Your task to perform on an android device: Find coffee shops on Maps Image 0: 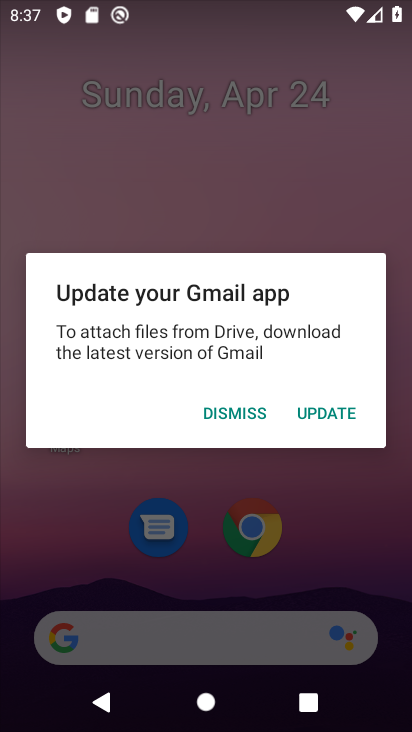
Step 0: press home button
Your task to perform on an android device: Find coffee shops on Maps Image 1: 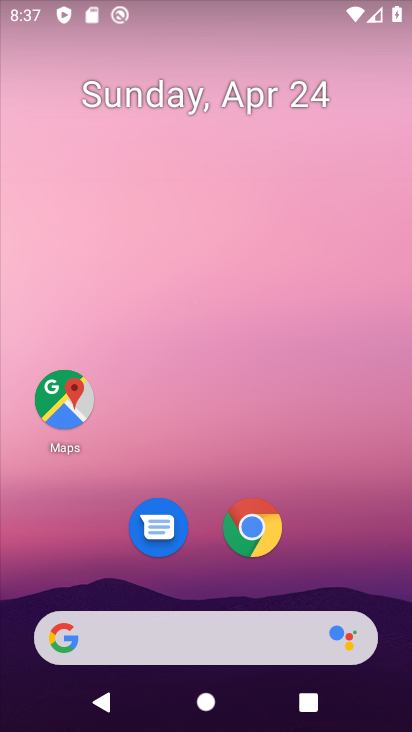
Step 1: drag from (380, 576) to (255, 55)
Your task to perform on an android device: Find coffee shops on Maps Image 2: 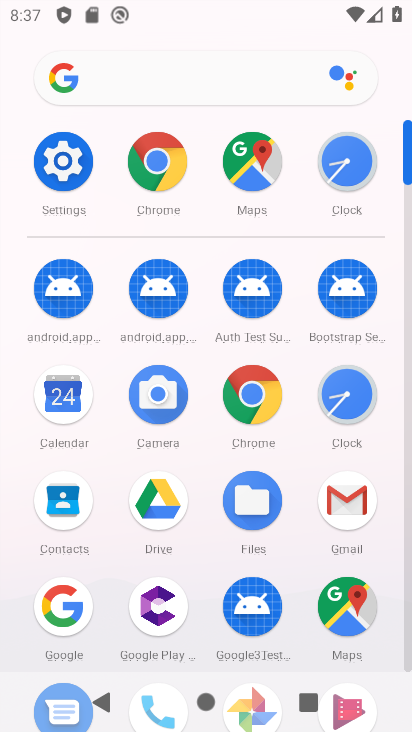
Step 2: click (370, 616)
Your task to perform on an android device: Find coffee shops on Maps Image 3: 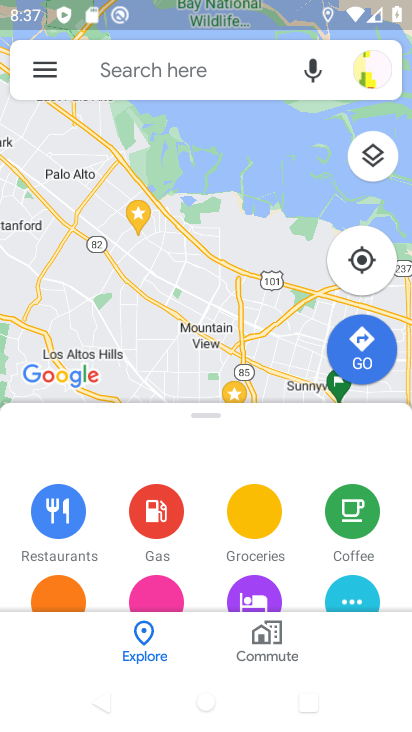
Step 3: click (115, 68)
Your task to perform on an android device: Find coffee shops on Maps Image 4: 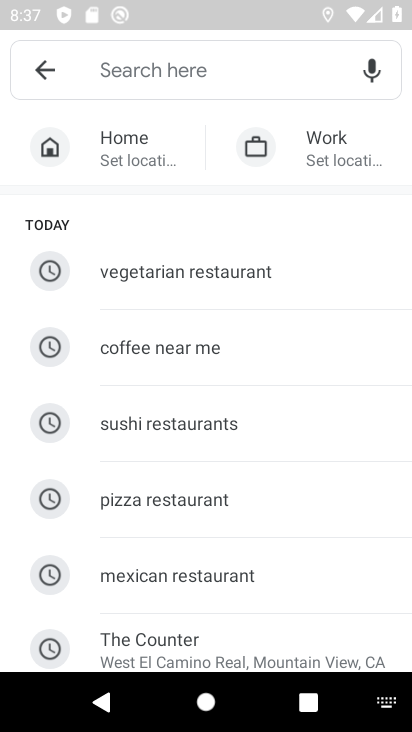
Step 4: click (194, 360)
Your task to perform on an android device: Find coffee shops on Maps Image 5: 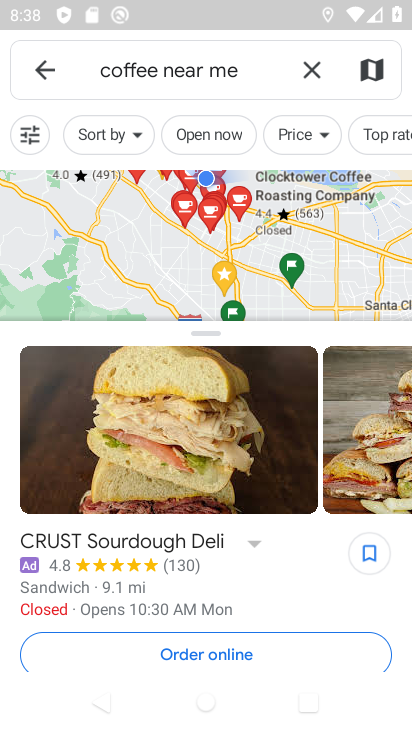
Step 5: task complete